Your task to perform on an android device: turn on showing notifications on the lock screen Image 0: 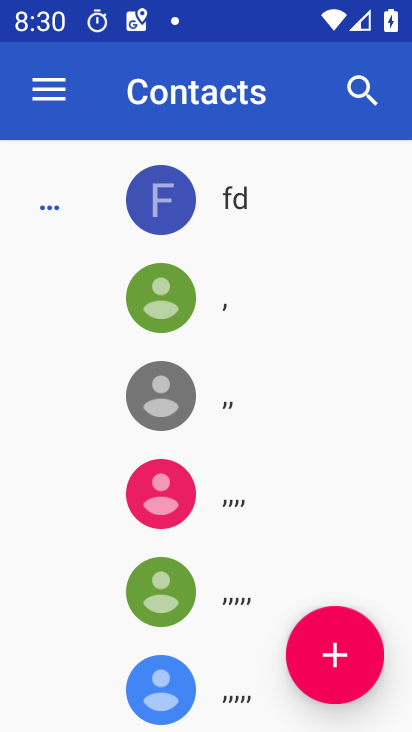
Step 0: press home button
Your task to perform on an android device: turn on showing notifications on the lock screen Image 1: 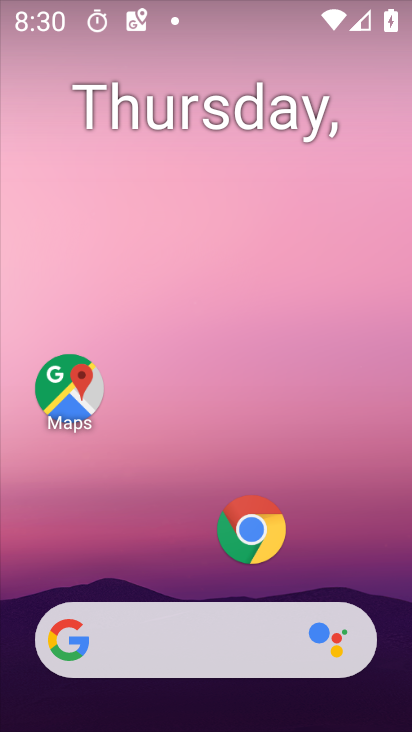
Step 1: drag from (203, 574) to (236, 106)
Your task to perform on an android device: turn on showing notifications on the lock screen Image 2: 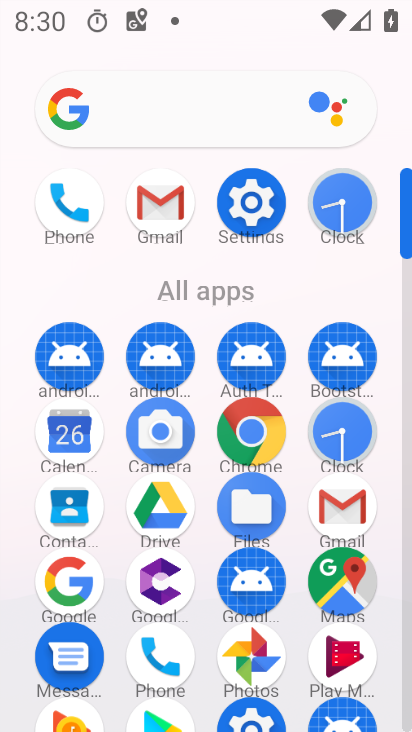
Step 2: click (250, 196)
Your task to perform on an android device: turn on showing notifications on the lock screen Image 3: 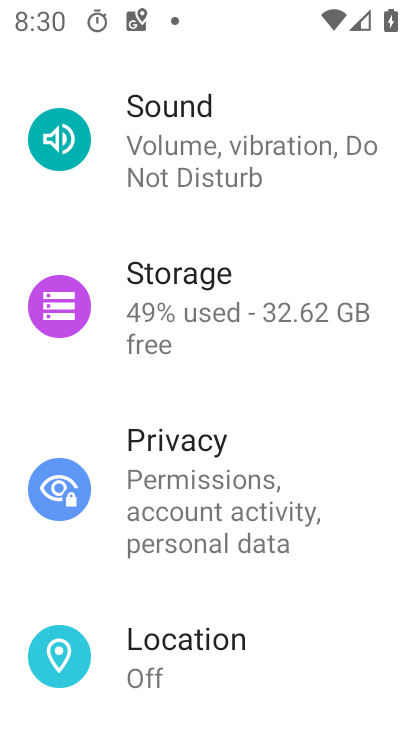
Step 3: drag from (213, 129) to (219, 727)
Your task to perform on an android device: turn on showing notifications on the lock screen Image 4: 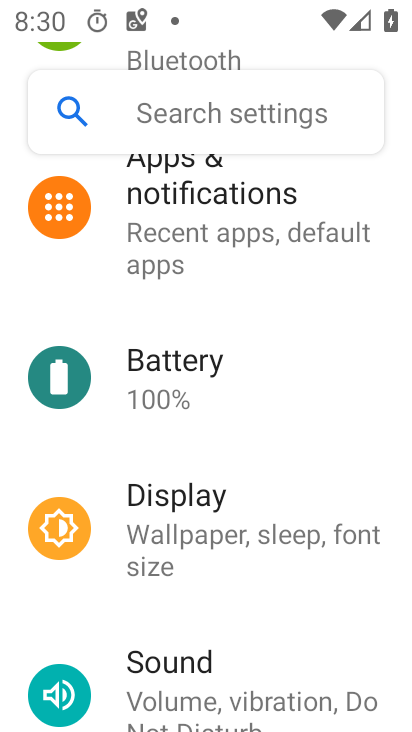
Step 4: click (227, 210)
Your task to perform on an android device: turn on showing notifications on the lock screen Image 5: 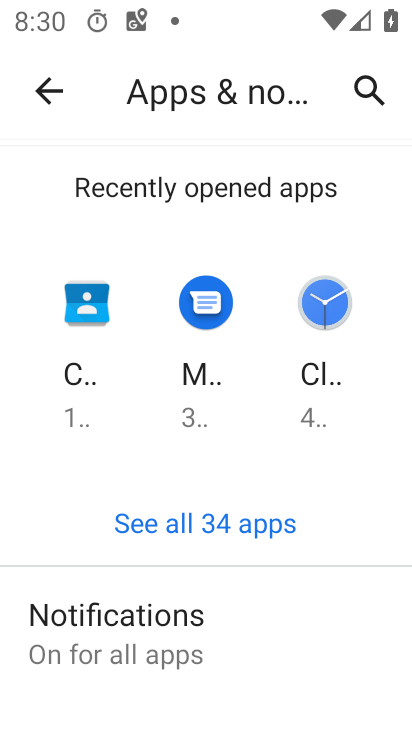
Step 5: click (218, 639)
Your task to perform on an android device: turn on showing notifications on the lock screen Image 6: 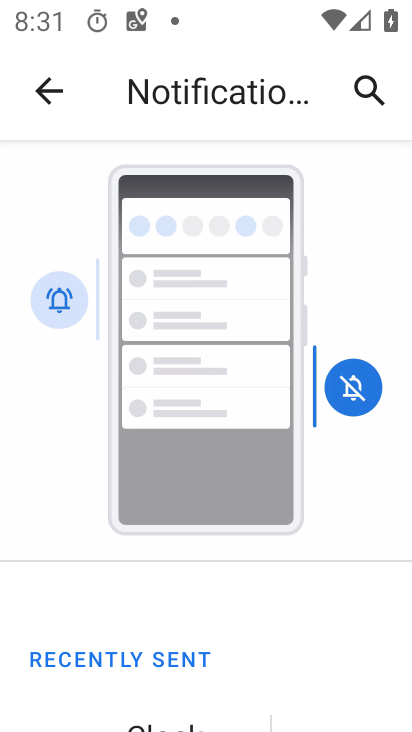
Step 6: drag from (233, 679) to (265, 249)
Your task to perform on an android device: turn on showing notifications on the lock screen Image 7: 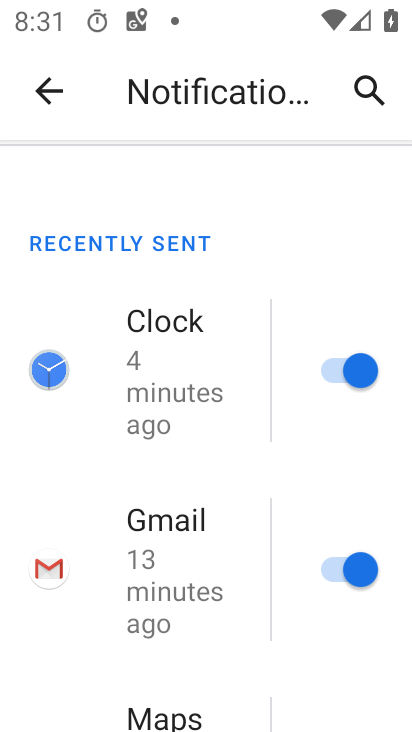
Step 7: drag from (241, 681) to (239, 234)
Your task to perform on an android device: turn on showing notifications on the lock screen Image 8: 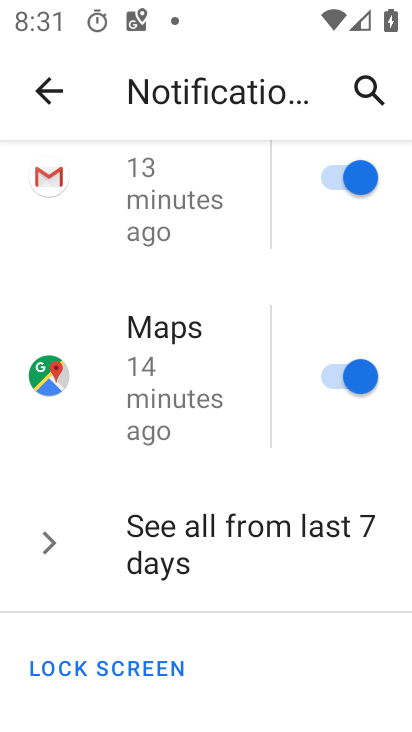
Step 8: drag from (241, 678) to (254, 164)
Your task to perform on an android device: turn on showing notifications on the lock screen Image 9: 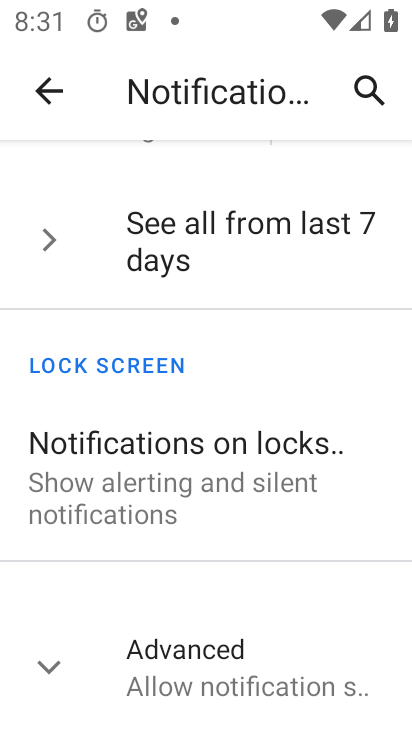
Step 9: click (326, 472)
Your task to perform on an android device: turn on showing notifications on the lock screen Image 10: 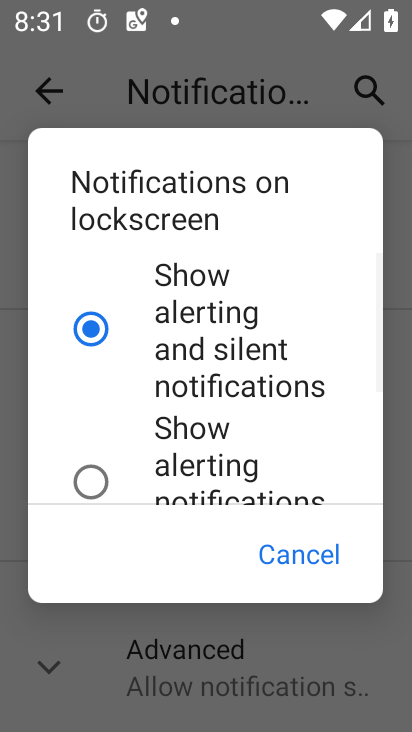
Step 10: click (85, 476)
Your task to perform on an android device: turn on showing notifications on the lock screen Image 11: 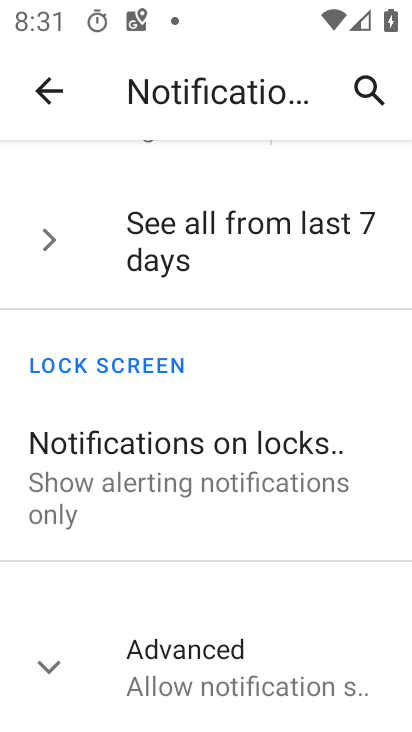
Step 11: task complete